Your task to perform on an android device: change alarm snooze length Image 0: 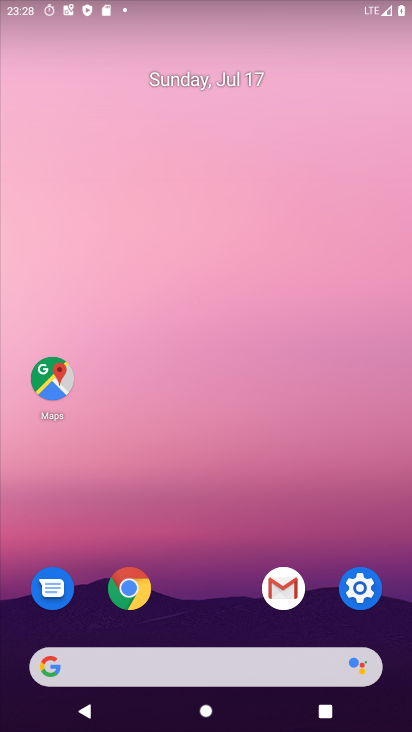
Step 0: drag from (300, 680) to (176, 169)
Your task to perform on an android device: change alarm snooze length Image 1: 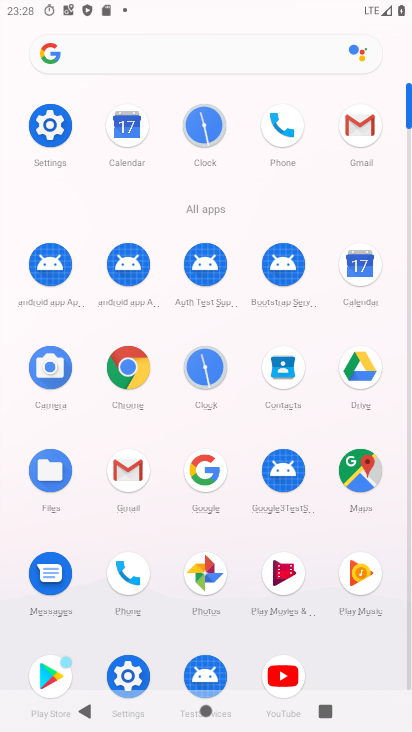
Step 1: click (209, 372)
Your task to perform on an android device: change alarm snooze length Image 2: 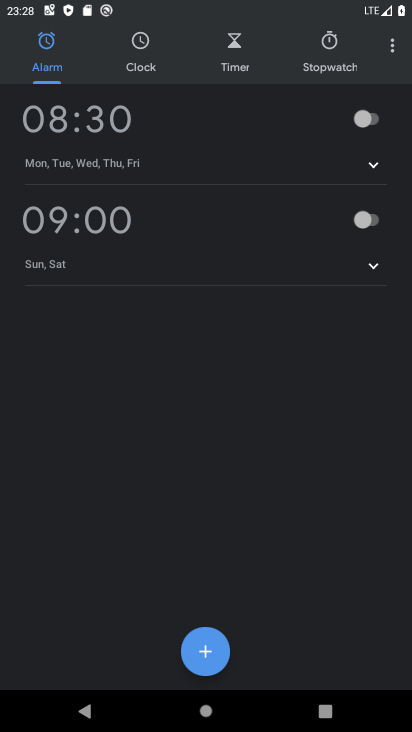
Step 2: click (379, 57)
Your task to perform on an android device: change alarm snooze length Image 3: 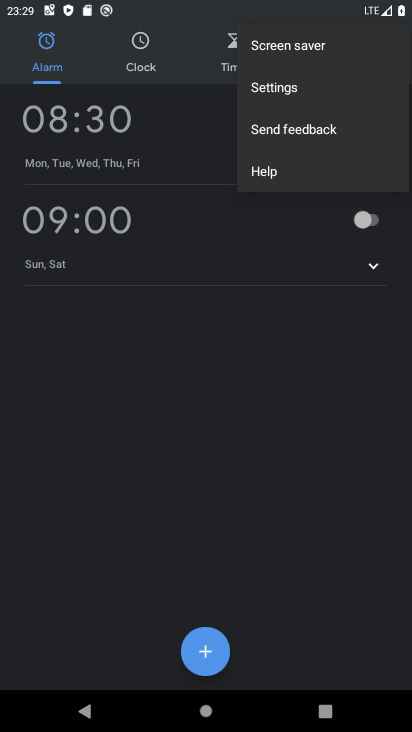
Step 3: click (291, 96)
Your task to perform on an android device: change alarm snooze length Image 4: 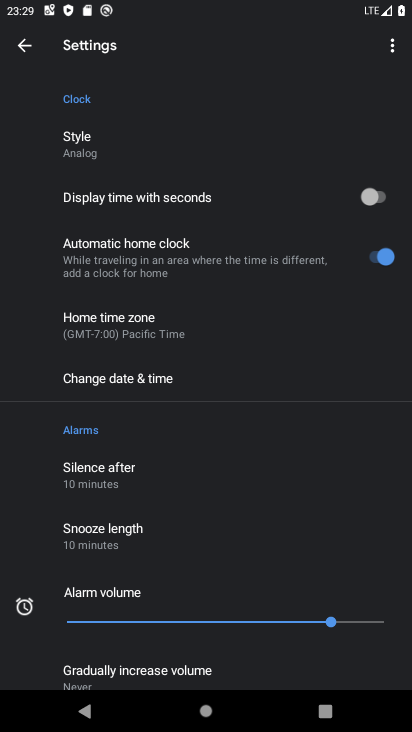
Step 4: click (138, 527)
Your task to perform on an android device: change alarm snooze length Image 5: 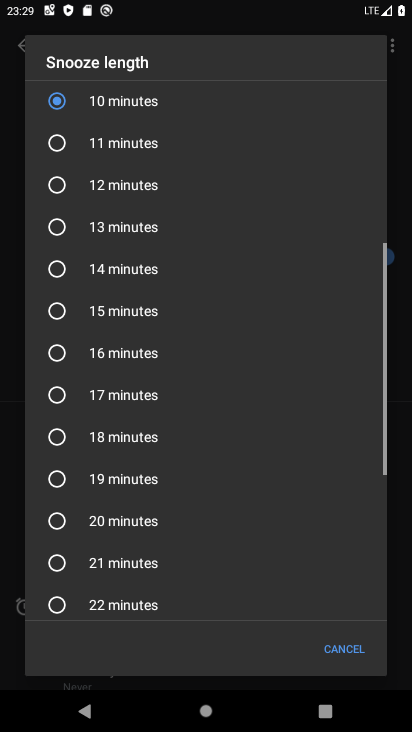
Step 5: click (131, 462)
Your task to perform on an android device: change alarm snooze length Image 6: 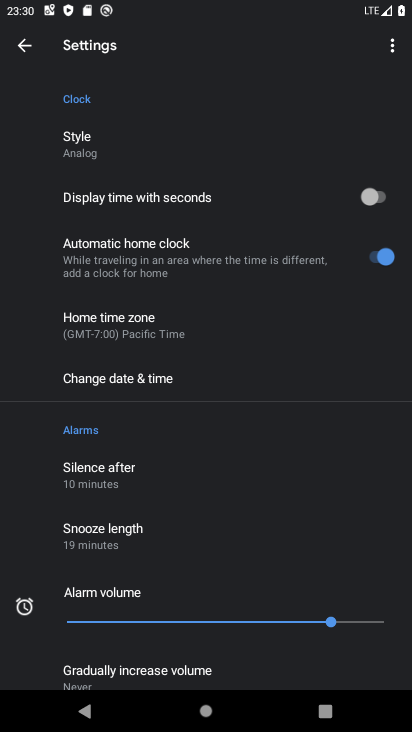
Step 6: task complete